Your task to perform on an android device: Go to Google Image 0: 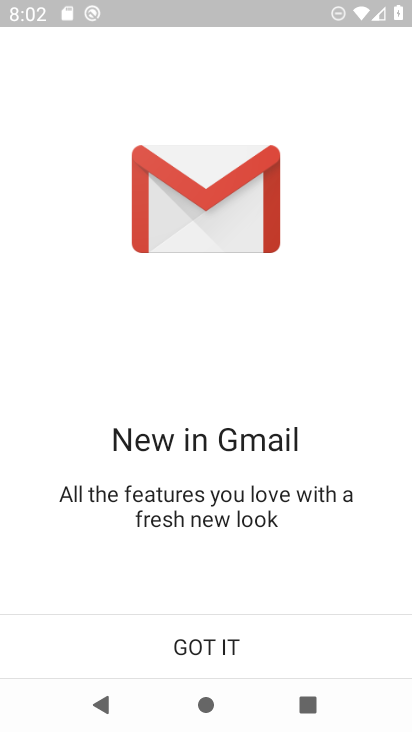
Step 0: press home button
Your task to perform on an android device: Go to Google Image 1: 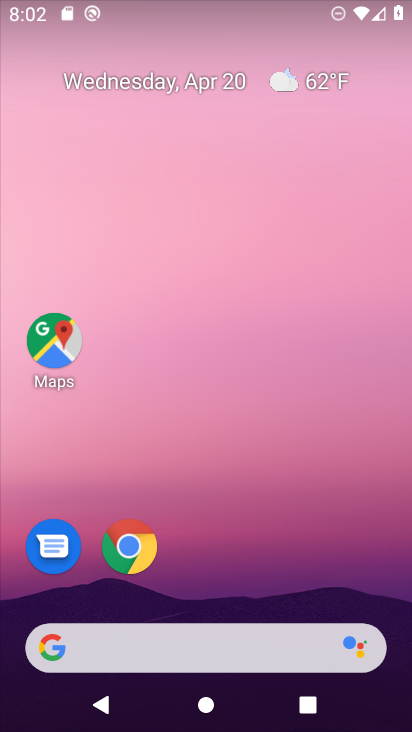
Step 1: click (48, 643)
Your task to perform on an android device: Go to Google Image 2: 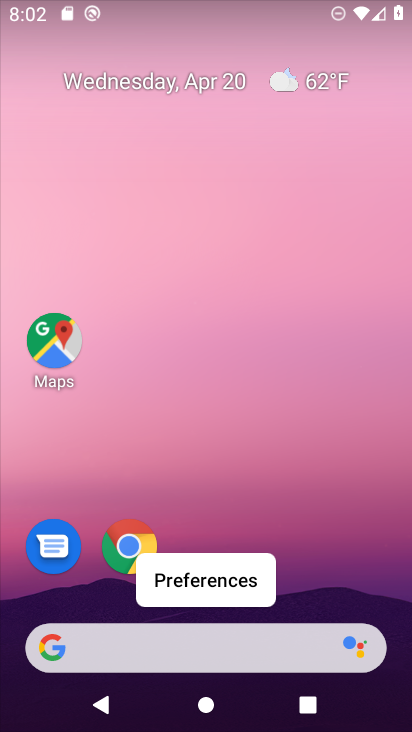
Step 2: click (48, 644)
Your task to perform on an android device: Go to Google Image 3: 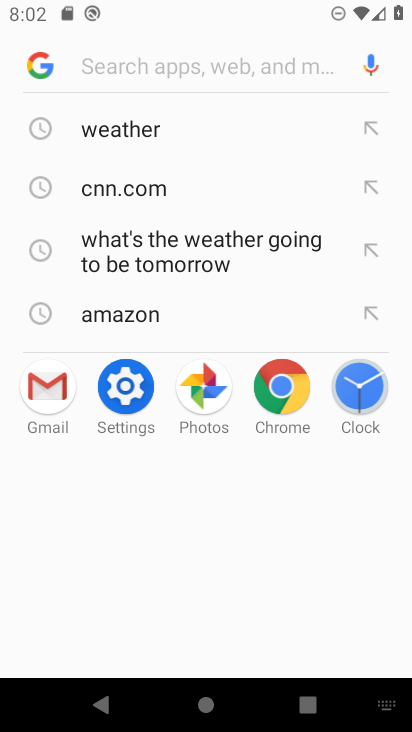
Step 3: click (37, 63)
Your task to perform on an android device: Go to Google Image 4: 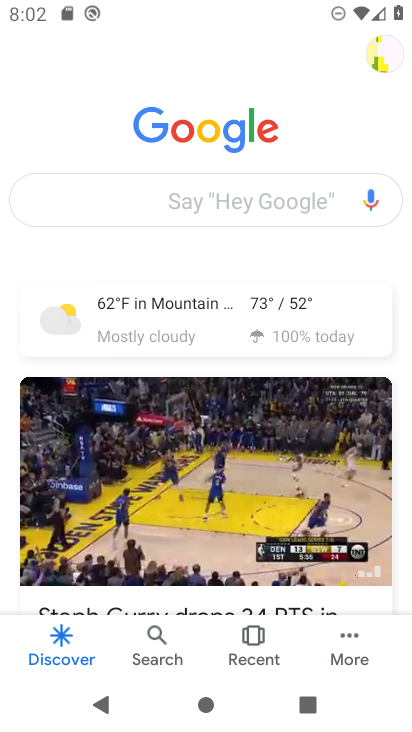
Step 4: task complete